Your task to perform on an android device: Check the news Image 0: 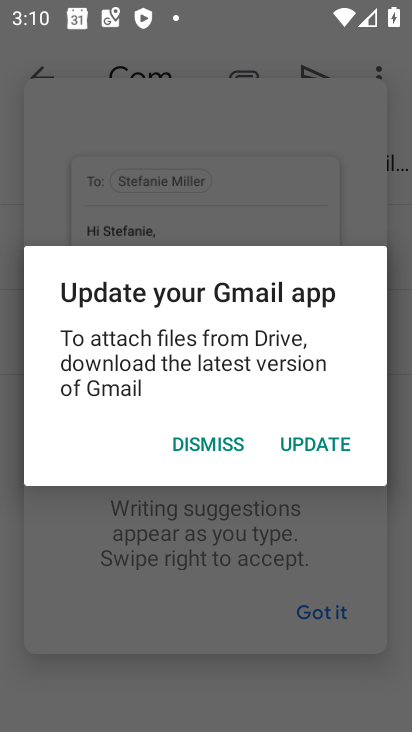
Step 0: press home button
Your task to perform on an android device: Check the news Image 1: 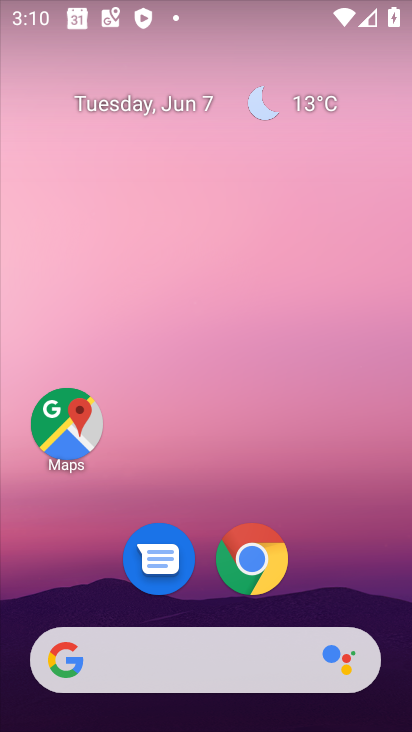
Step 1: click (256, 553)
Your task to perform on an android device: Check the news Image 2: 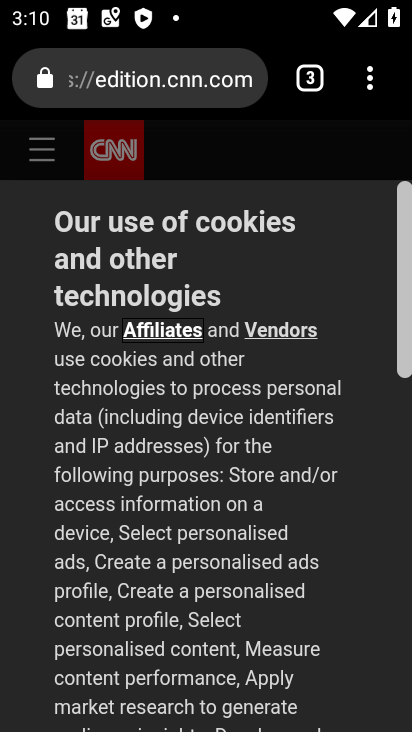
Step 2: click (243, 88)
Your task to perform on an android device: Check the news Image 3: 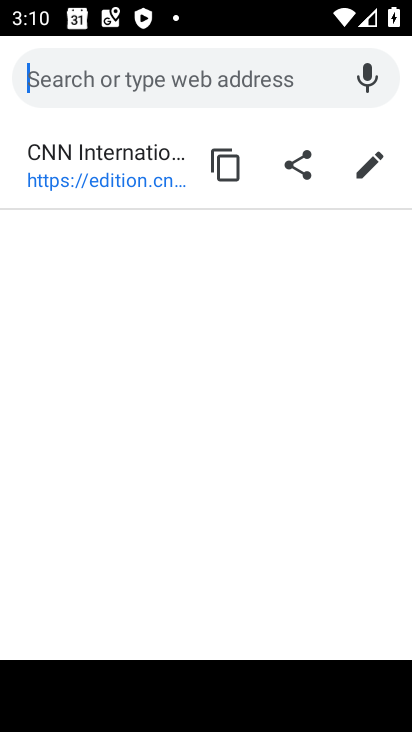
Step 3: click (255, 78)
Your task to perform on an android device: Check the news Image 4: 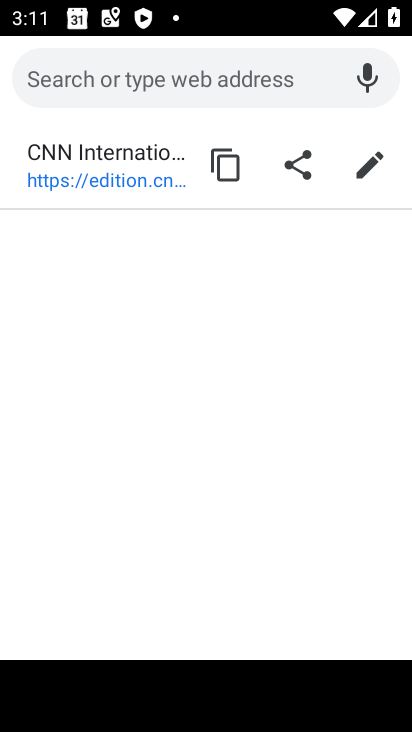
Step 4: type "news"
Your task to perform on an android device: Check the news Image 5: 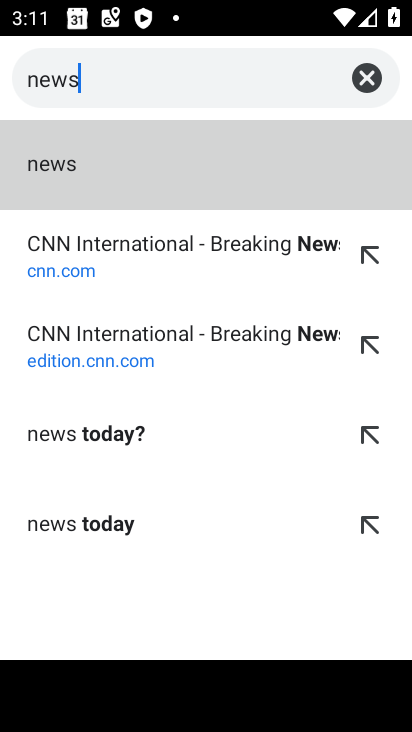
Step 5: click (133, 194)
Your task to perform on an android device: Check the news Image 6: 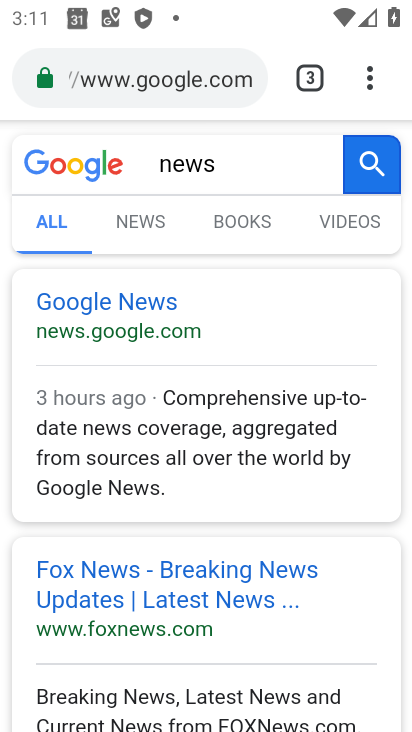
Step 6: click (140, 301)
Your task to perform on an android device: Check the news Image 7: 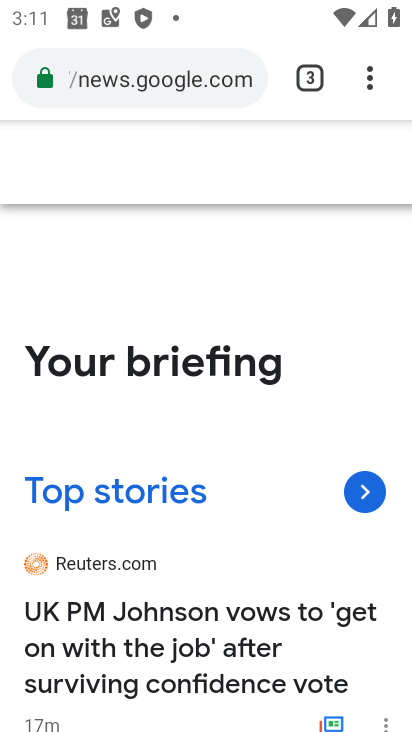
Step 7: task complete